Your task to perform on an android device: turn pop-ups on in chrome Image 0: 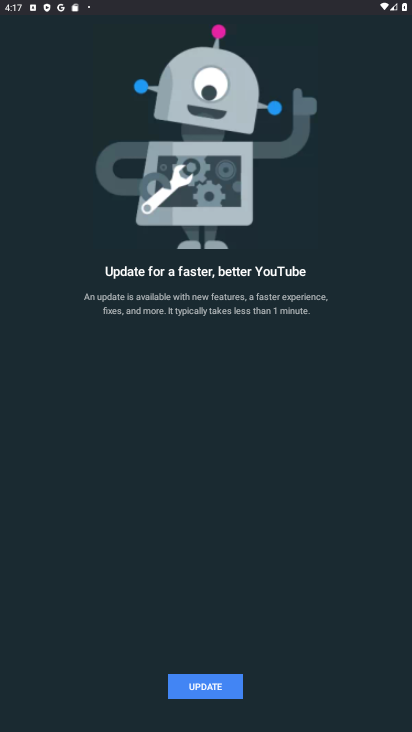
Step 0: press home button
Your task to perform on an android device: turn pop-ups on in chrome Image 1: 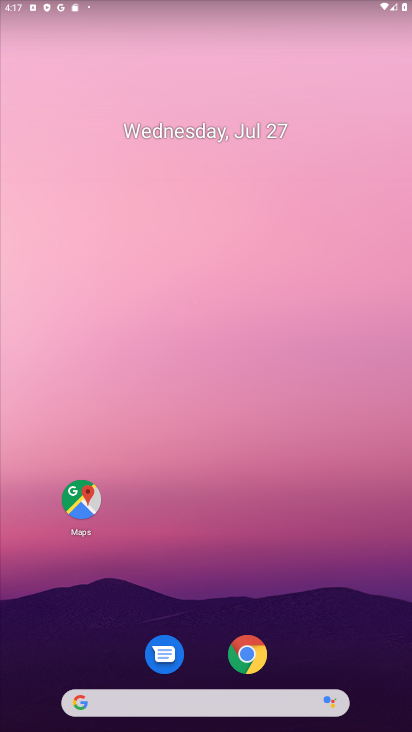
Step 1: click (250, 652)
Your task to perform on an android device: turn pop-ups on in chrome Image 2: 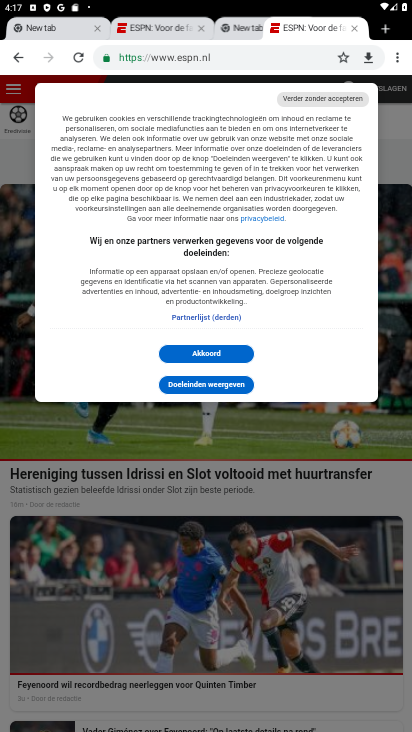
Step 2: click (401, 60)
Your task to perform on an android device: turn pop-ups on in chrome Image 3: 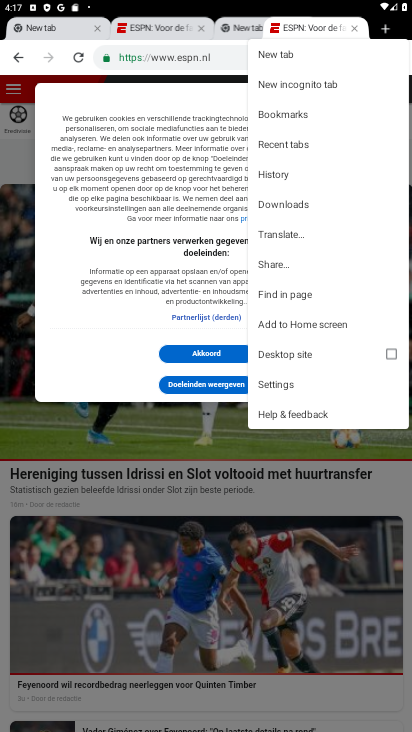
Step 3: click (299, 378)
Your task to perform on an android device: turn pop-ups on in chrome Image 4: 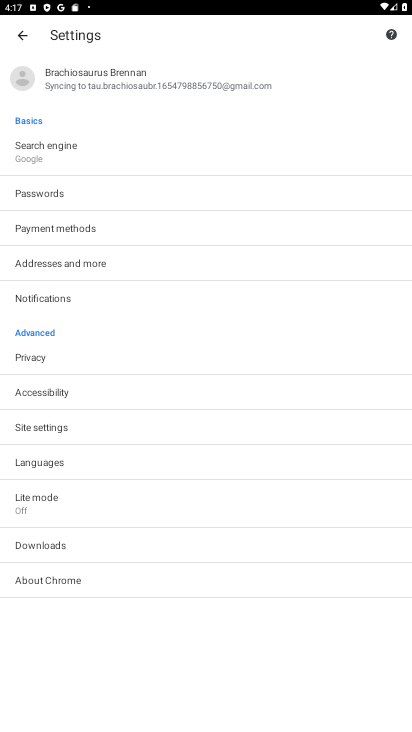
Step 4: click (34, 434)
Your task to perform on an android device: turn pop-ups on in chrome Image 5: 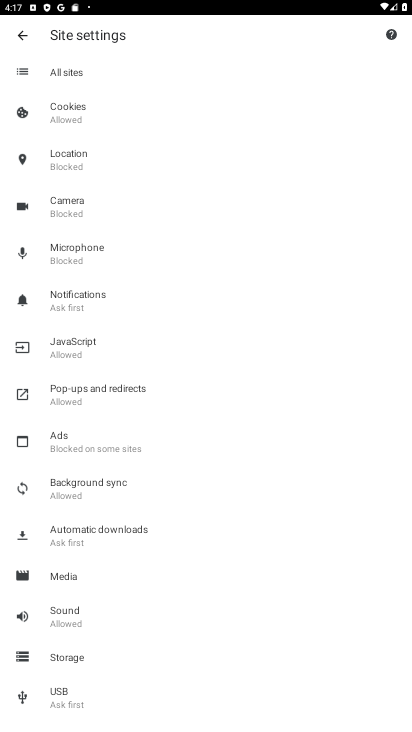
Step 5: click (79, 386)
Your task to perform on an android device: turn pop-ups on in chrome Image 6: 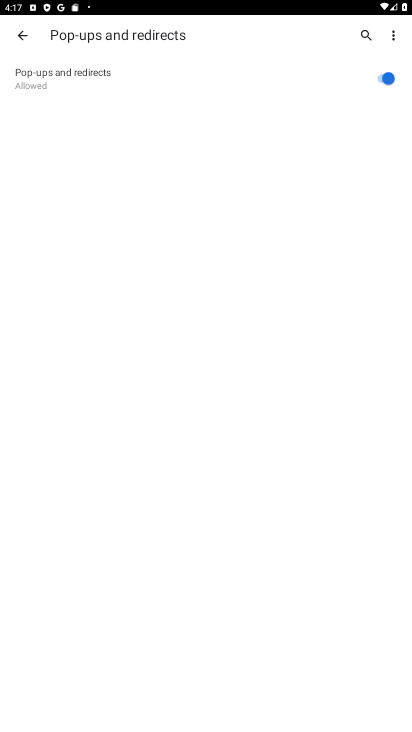
Step 6: task complete